Your task to perform on an android device: Open Google Maps and go to "Timeline" Image 0: 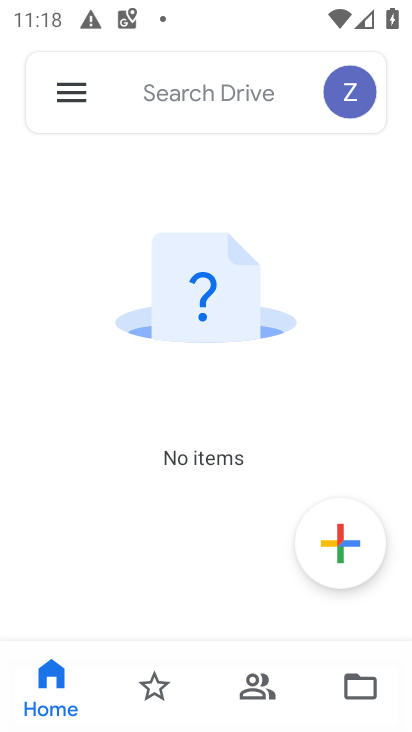
Step 0: press home button
Your task to perform on an android device: Open Google Maps and go to "Timeline" Image 1: 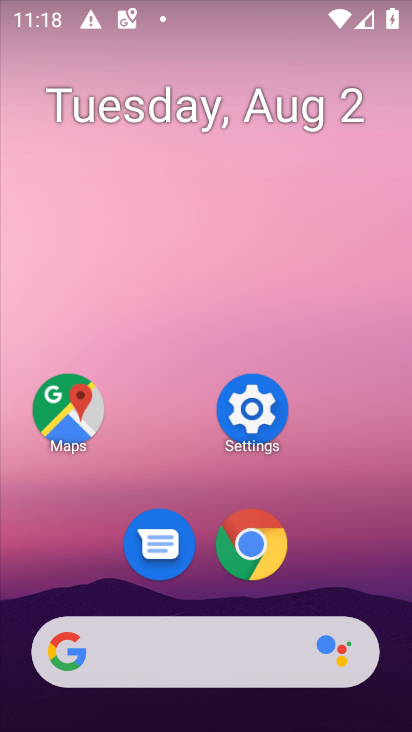
Step 1: click (67, 419)
Your task to perform on an android device: Open Google Maps and go to "Timeline" Image 2: 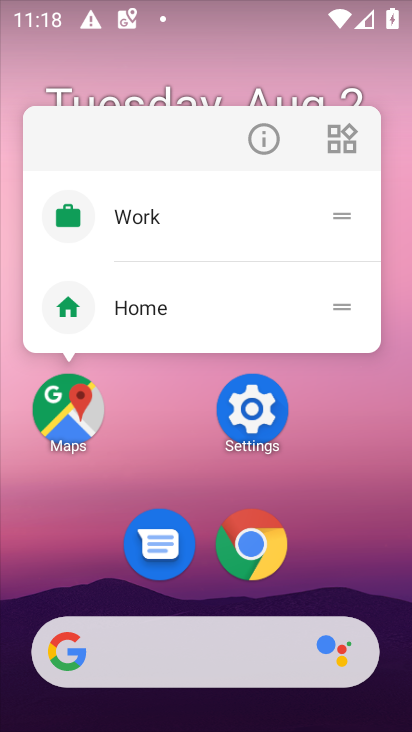
Step 2: click (67, 420)
Your task to perform on an android device: Open Google Maps and go to "Timeline" Image 3: 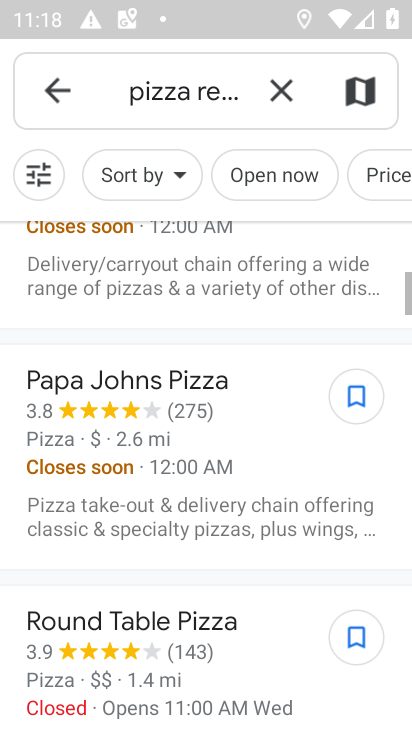
Step 3: click (276, 84)
Your task to perform on an android device: Open Google Maps and go to "Timeline" Image 4: 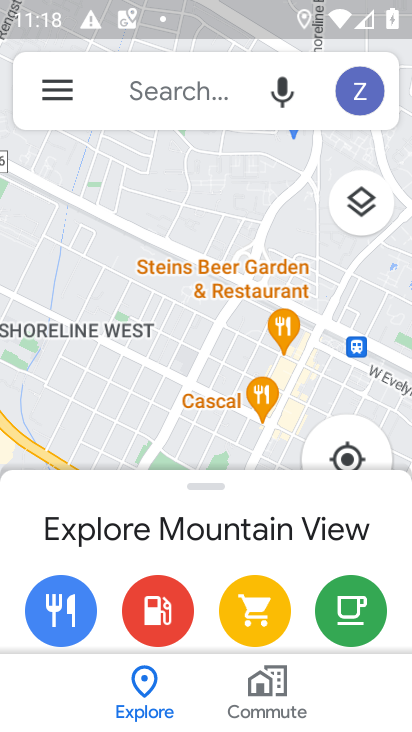
Step 4: click (56, 93)
Your task to perform on an android device: Open Google Maps and go to "Timeline" Image 5: 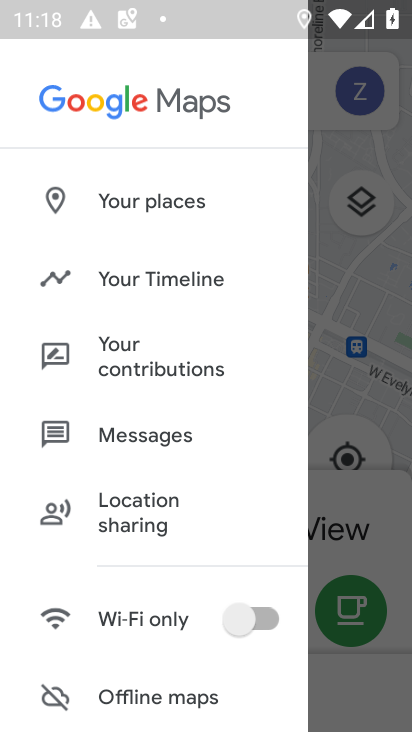
Step 5: click (164, 280)
Your task to perform on an android device: Open Google Maps and go to "Timeline" Image 6: 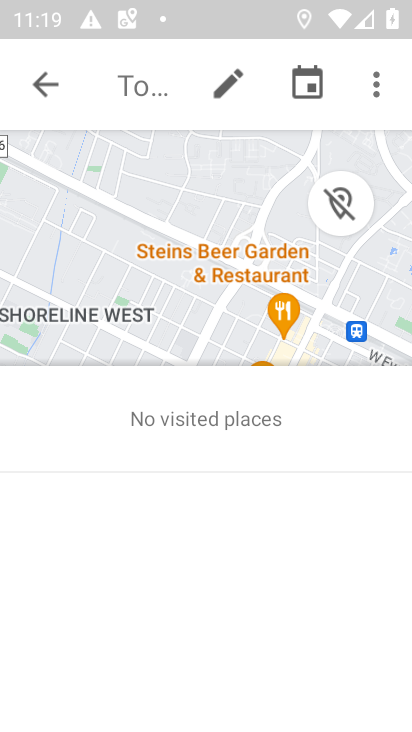
Step 6: task complete